Your task to perform on an android device: see sites visited before in the chrome app Image 0: 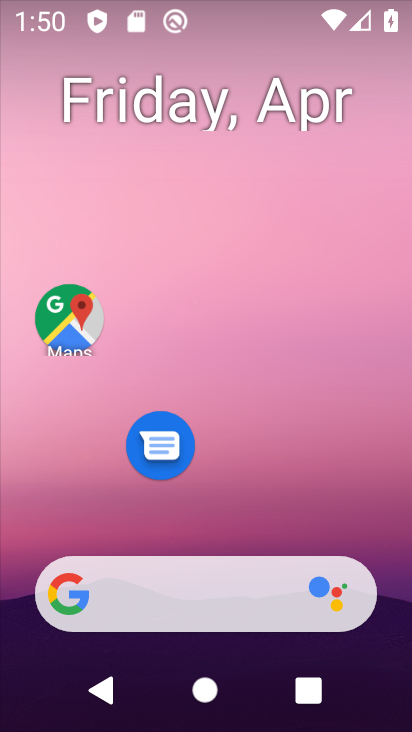
Step 0: drag from (343, 478) to (407, 105)
Your task to perform on an android device: see sites visited before in the chrome app Image 1: 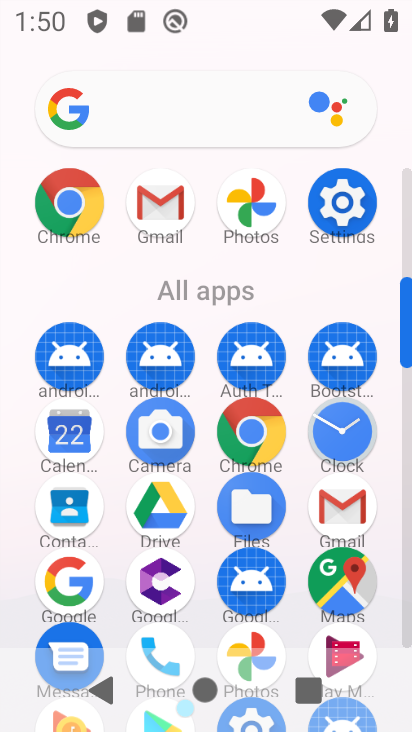
Step 1: click (69, 214)
Your task to perform on an android device: see sites visited before in the chrome app Image 2: 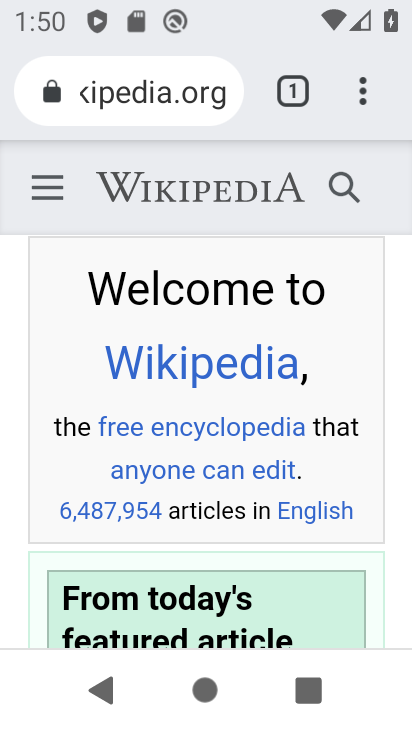
Step 2: click (360, 91)
Your task to perform on an android device: see sites visited before in the chrome app Image 3: 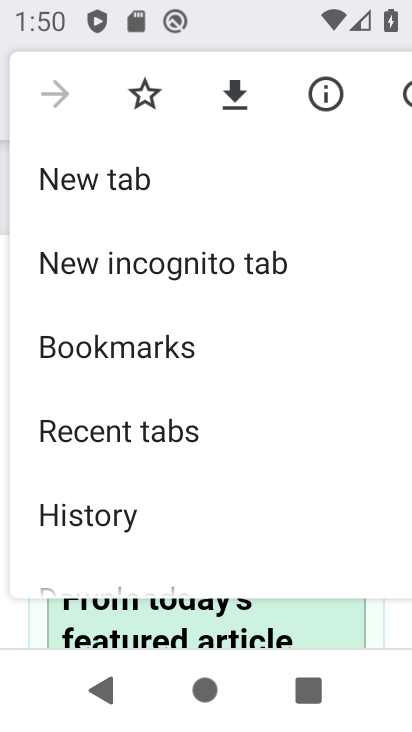
Step 3: drag from (223, 466) to (253, 317)
Your task to perform on an android device: see sites visited before in the chrome app Image 4: 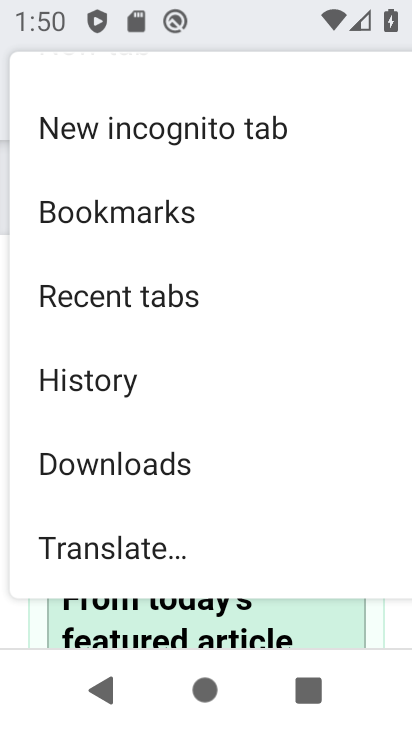
Step 4: click (161, 375)
Your task to perform on an android device: see sites visited before in the chrome app Image 5: 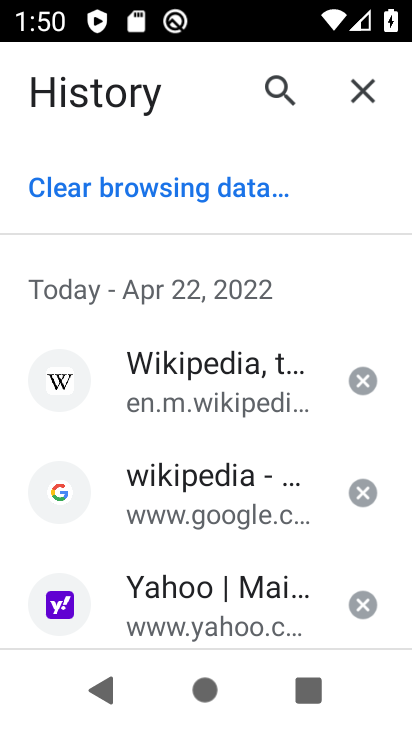
Step 5: task complete